Your task to perform on an android device: uninstall "PUBG MOBILE" Image 0: 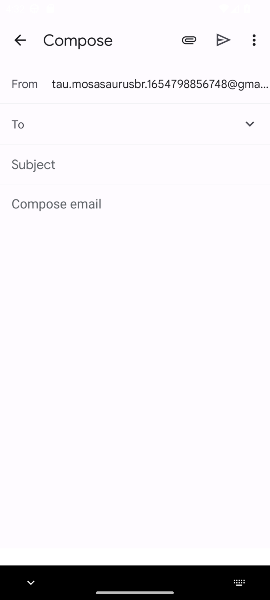
Step 0: press home button
Your task to perform on an android device: uninstall "PUBG MOBILE" Image 1: 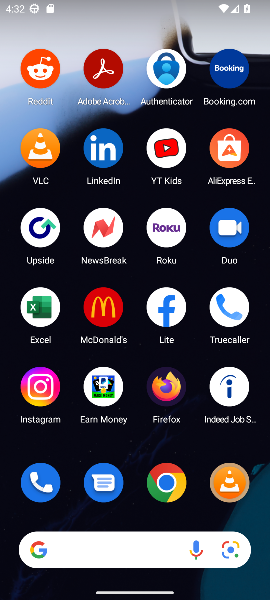
Step 1: press home button
Your task to perform on an android device: uninstall "PUBG MOBILE" Image 2: 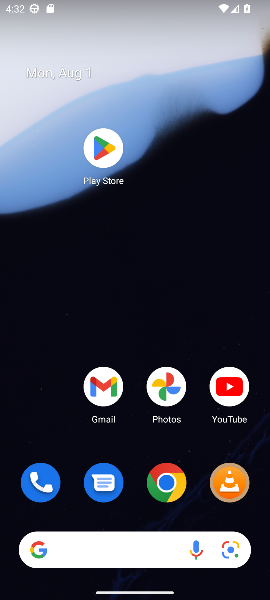
Step 2: click (106, 151)
Your task to perform on an android device: uninstall "PUBG MOBILE" Image 3: 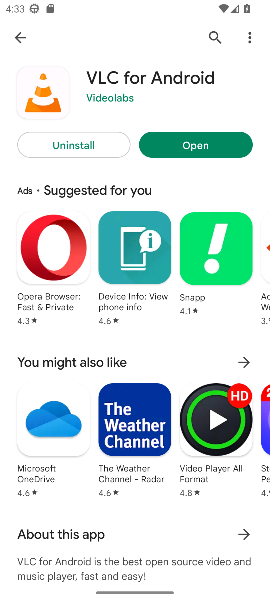
Step 3: click (208, 36)
Your task to perform on an android device: uninstall "PUBG MOBILE" Image 4: 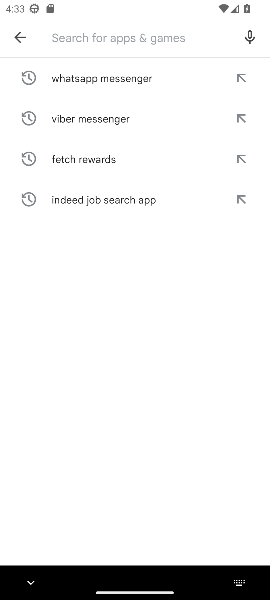
Step 4: type "PUBG MOBILE"
Your task to perform on an android device: uninstall "PUBG MOBILE" Image 5: 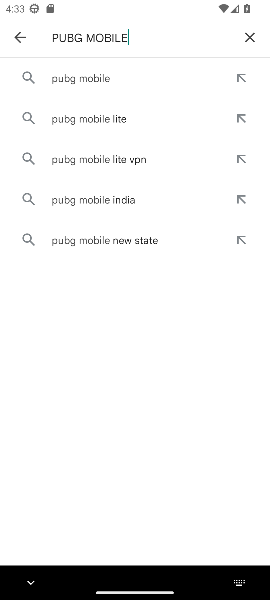
Step 5: click (94, 80)
Your task to perform on an android device: uninstall "PUBG MOBILE" Image 6: 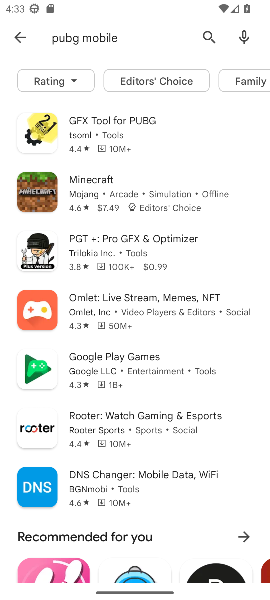
Step 6: task complete